Your task to perform on an android device: open a new tab in the chrome app Image 0: 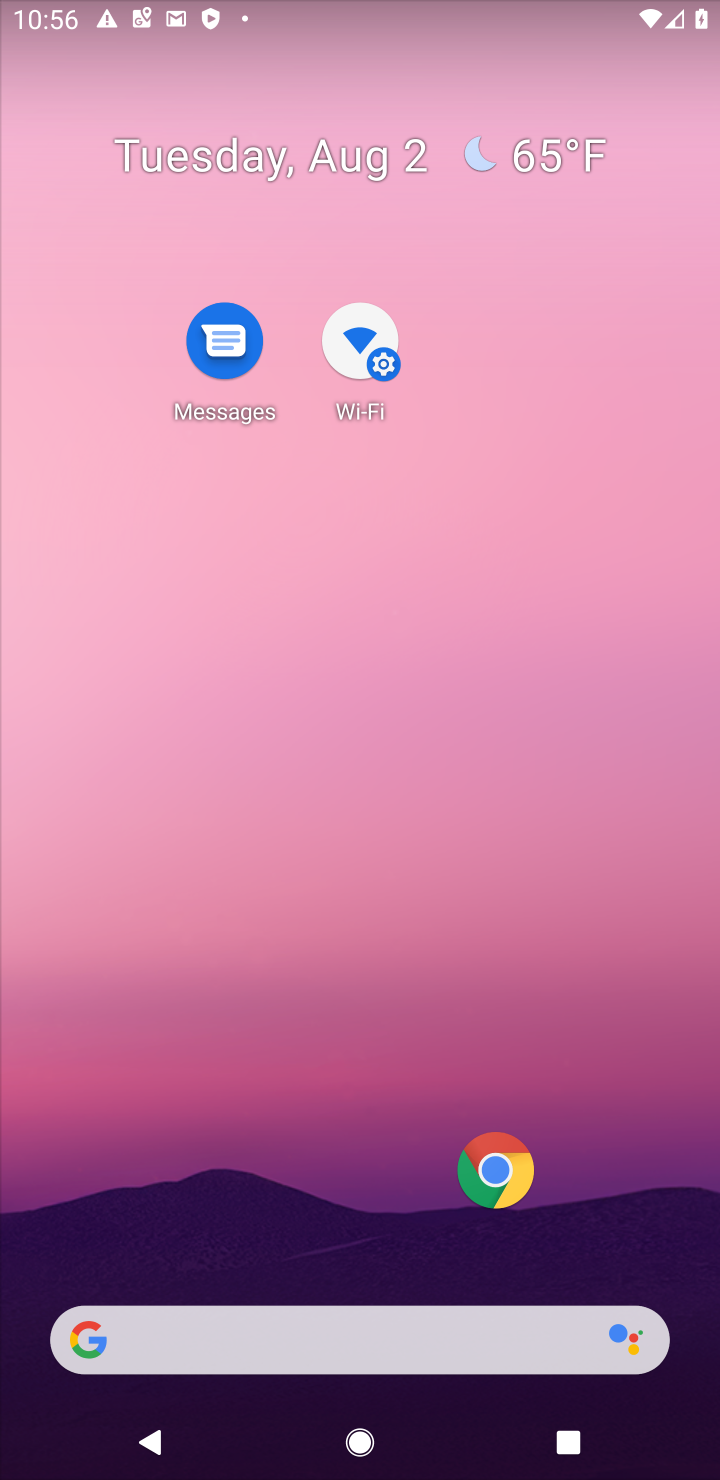
Step 0: drag from (385, 1290) to (498, 505)
Your task to perform on an android device: open a new tab in the chrome app Image 1: 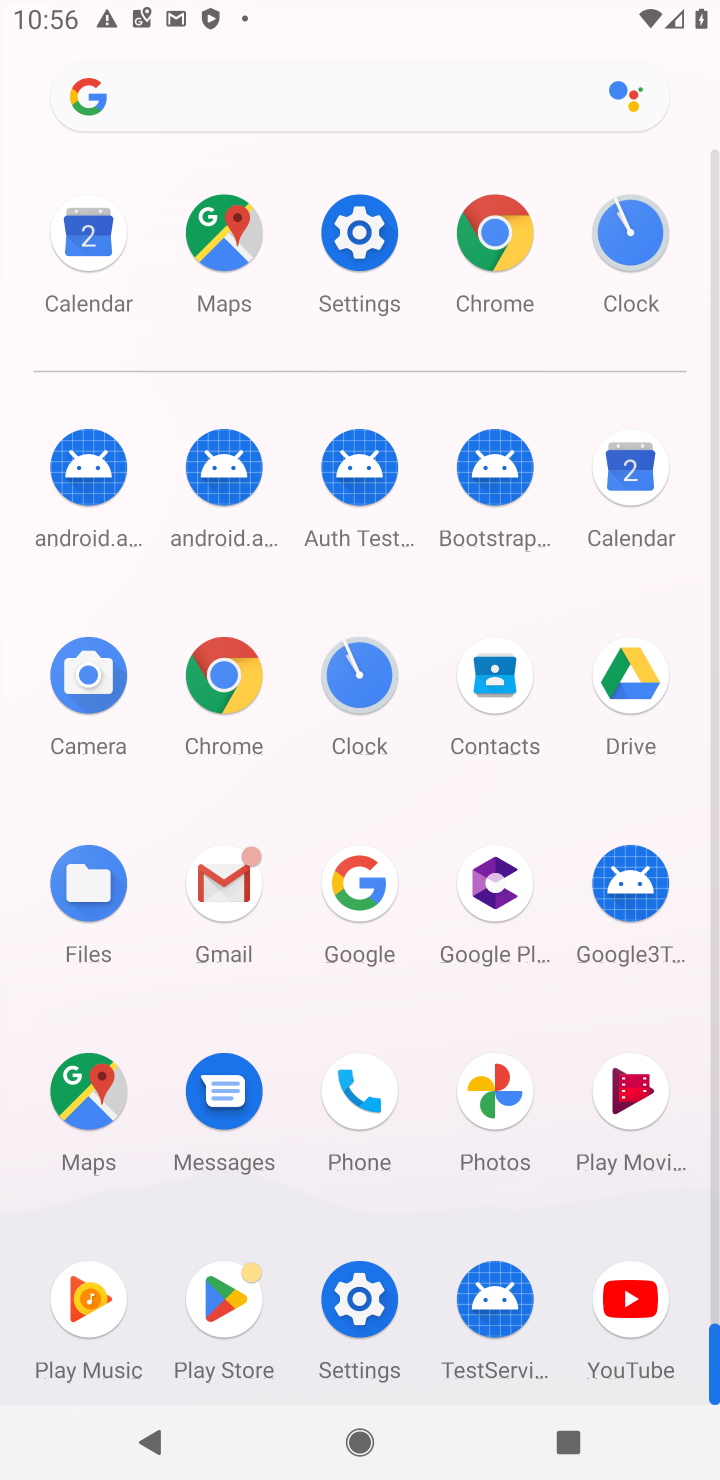
Step 1: click (236, 686)
Your task to perform on an android device: open a new tab in the chrome app Image 2: 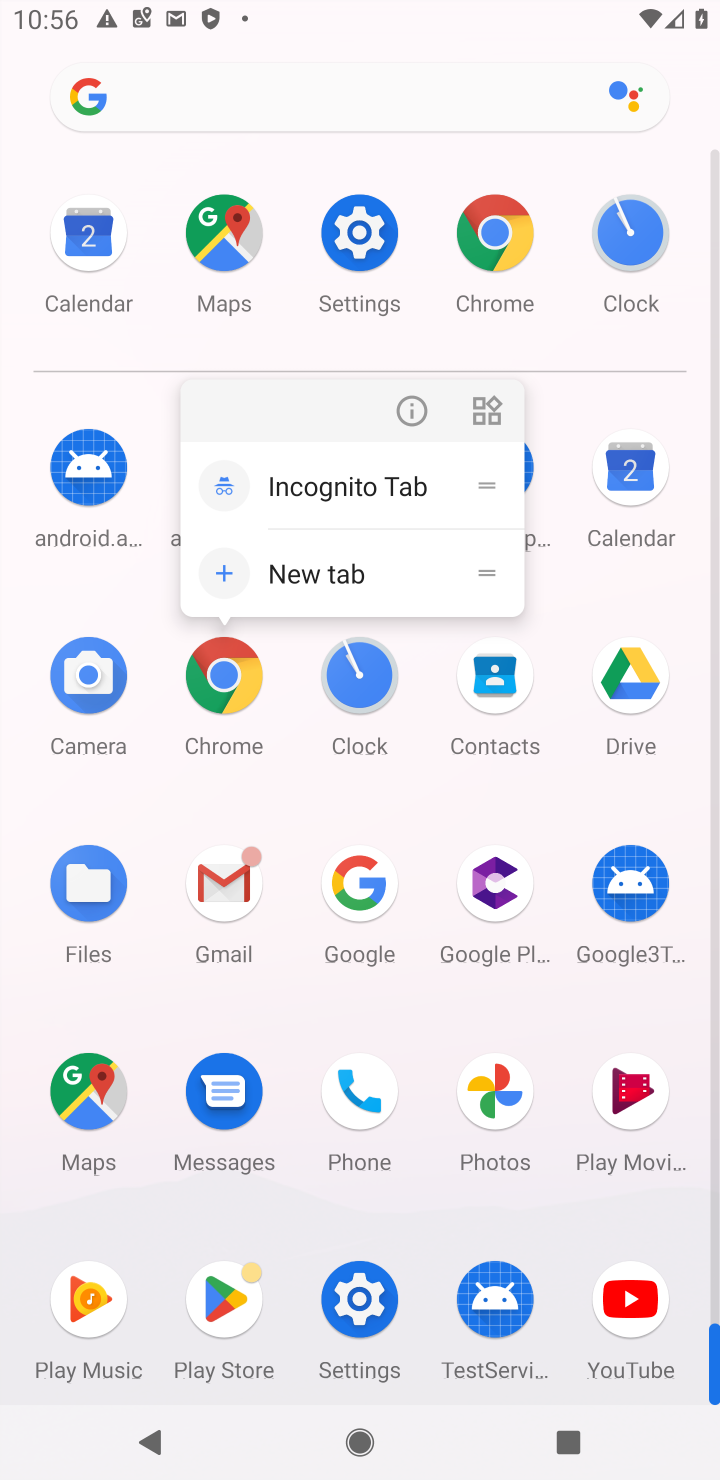
Step 2: click (400, 413)
Your task to perform on an android device: open a new tab in the chrome app Image 3: 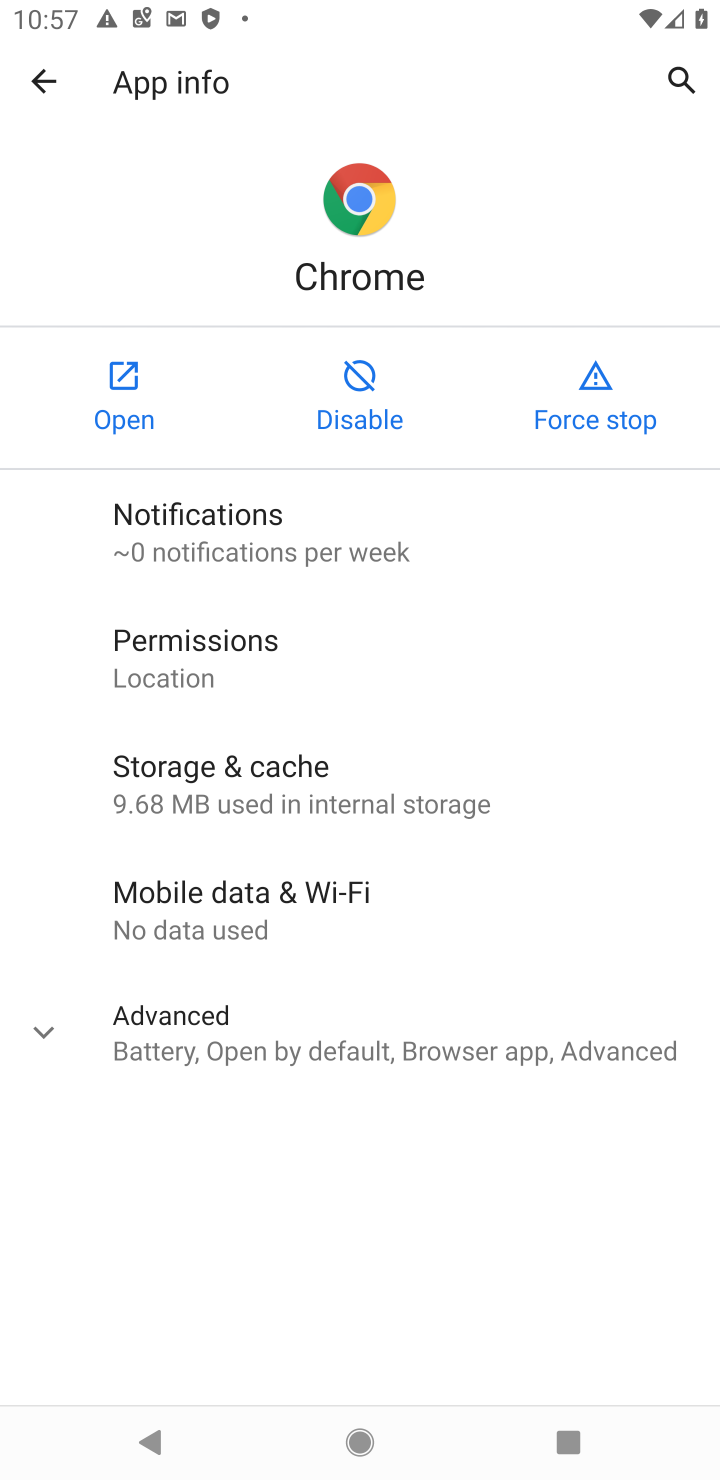
Step 3: click (118, 424)
Your task to perform on an android device: open a new tab in the chrome app Image 4: 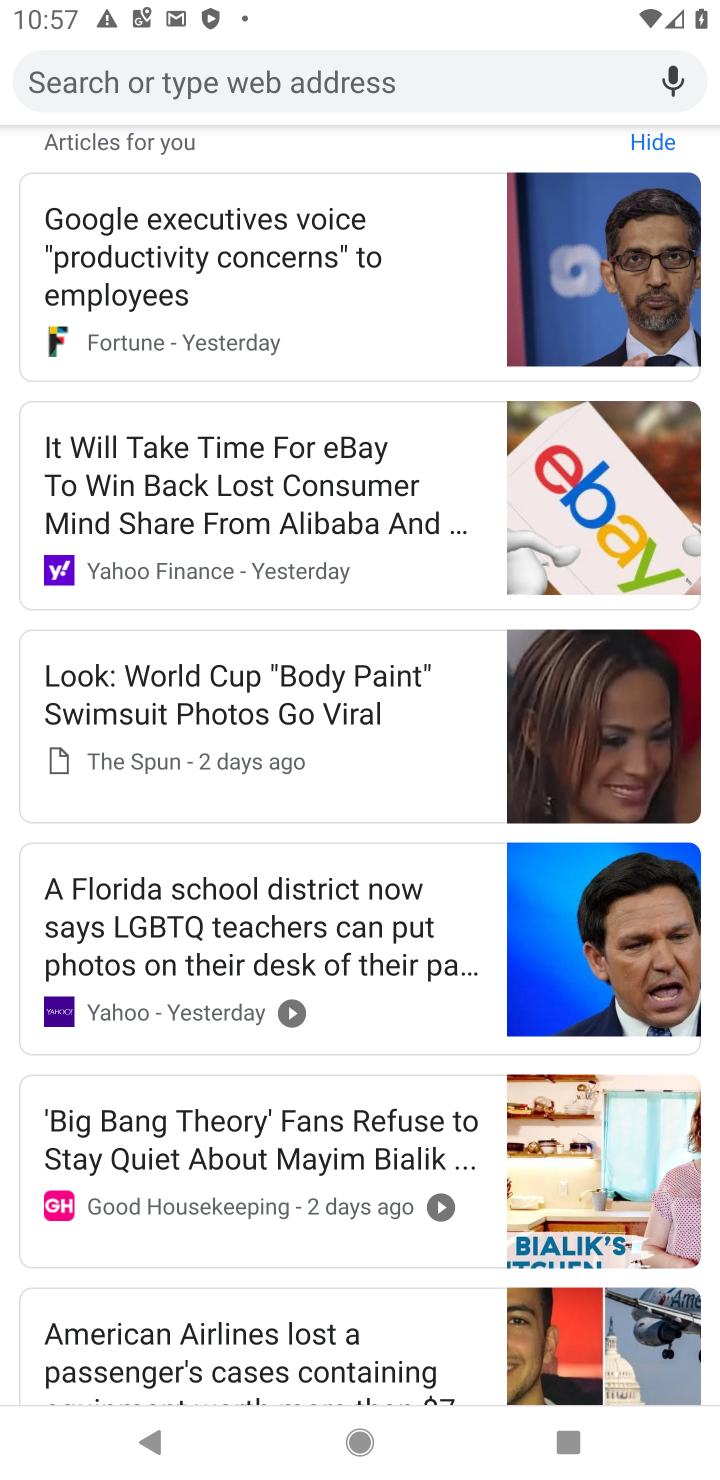
Step 4: drag from (570, 209) to (714, 1171)
Your task to perform on an android device: open a new tab in the chrome app Image 5: 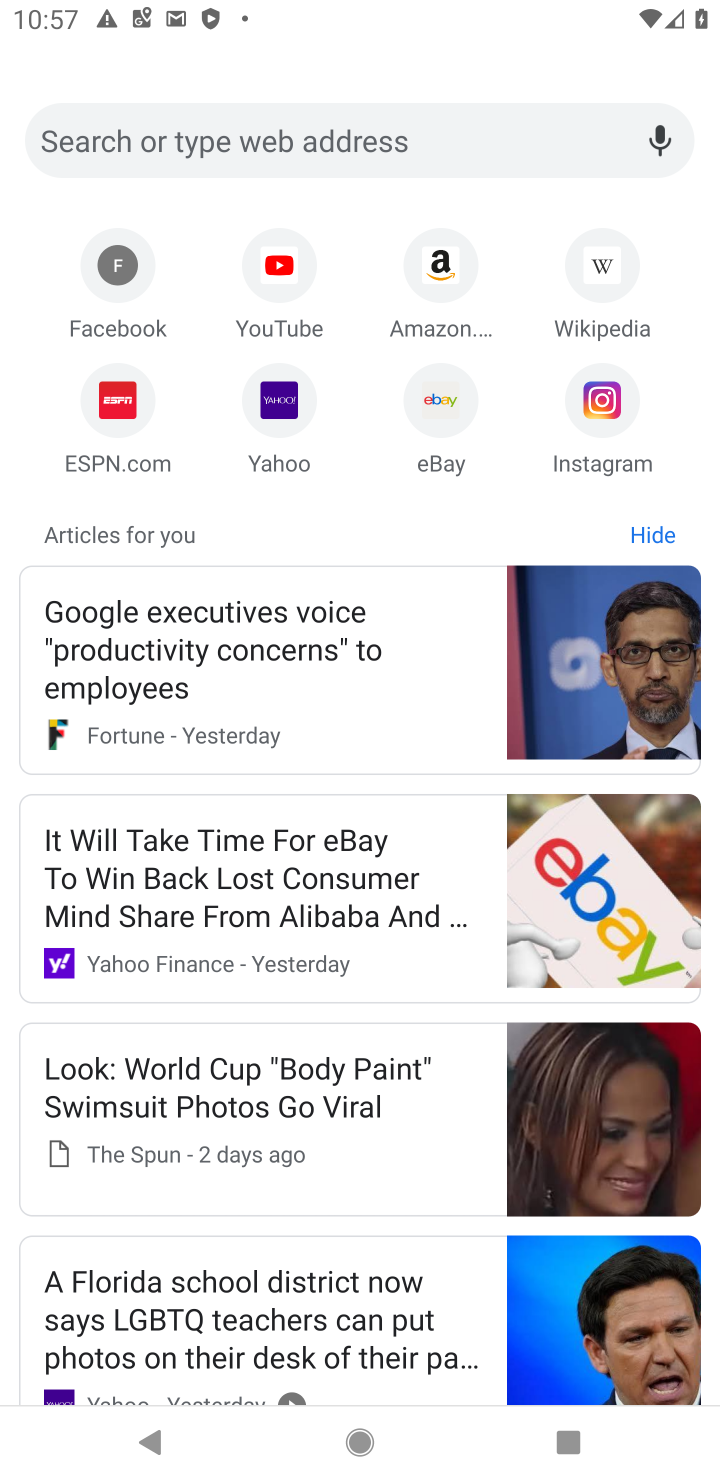
Step 5: drag from (590, 340) to (534, 1442)
Your task to perform on an android device: open a new tab in the chrome app Image 6: 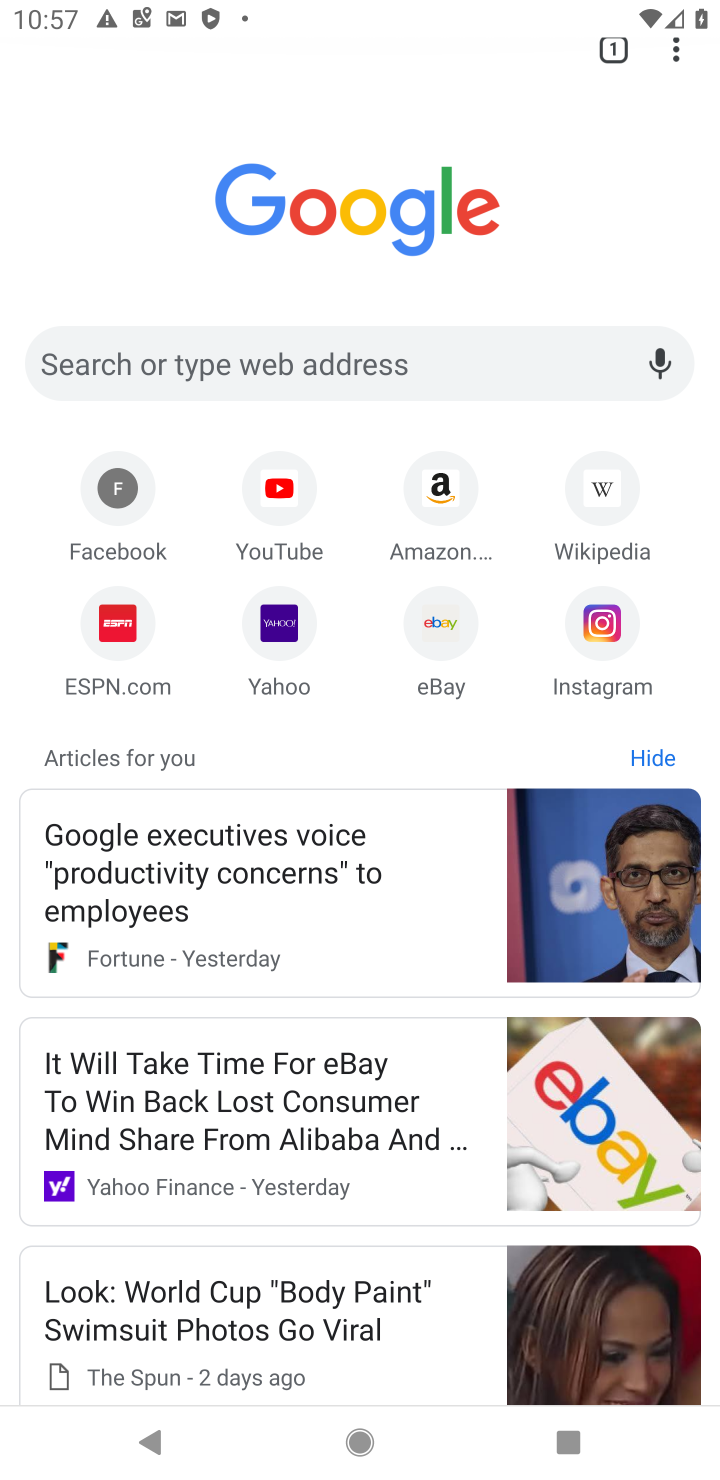
Step 6: drag from (586, 248) to (607, 1163)
Your task to perform on an android device: open a new tab in the chrome app Image 7: 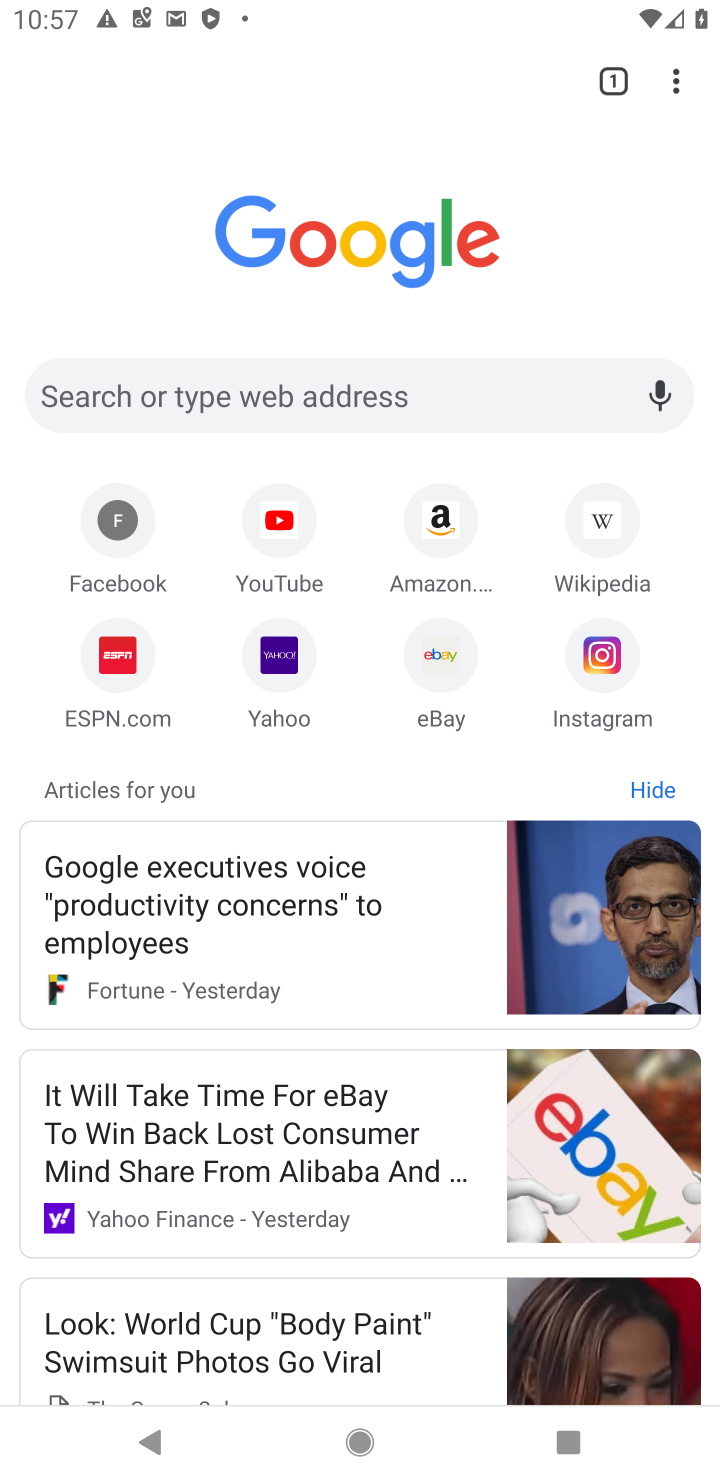
Step 7: drag from (365, 169) to (428, 816)
Your task to perform on an android device: open a new tab in the chrome app Image 8: 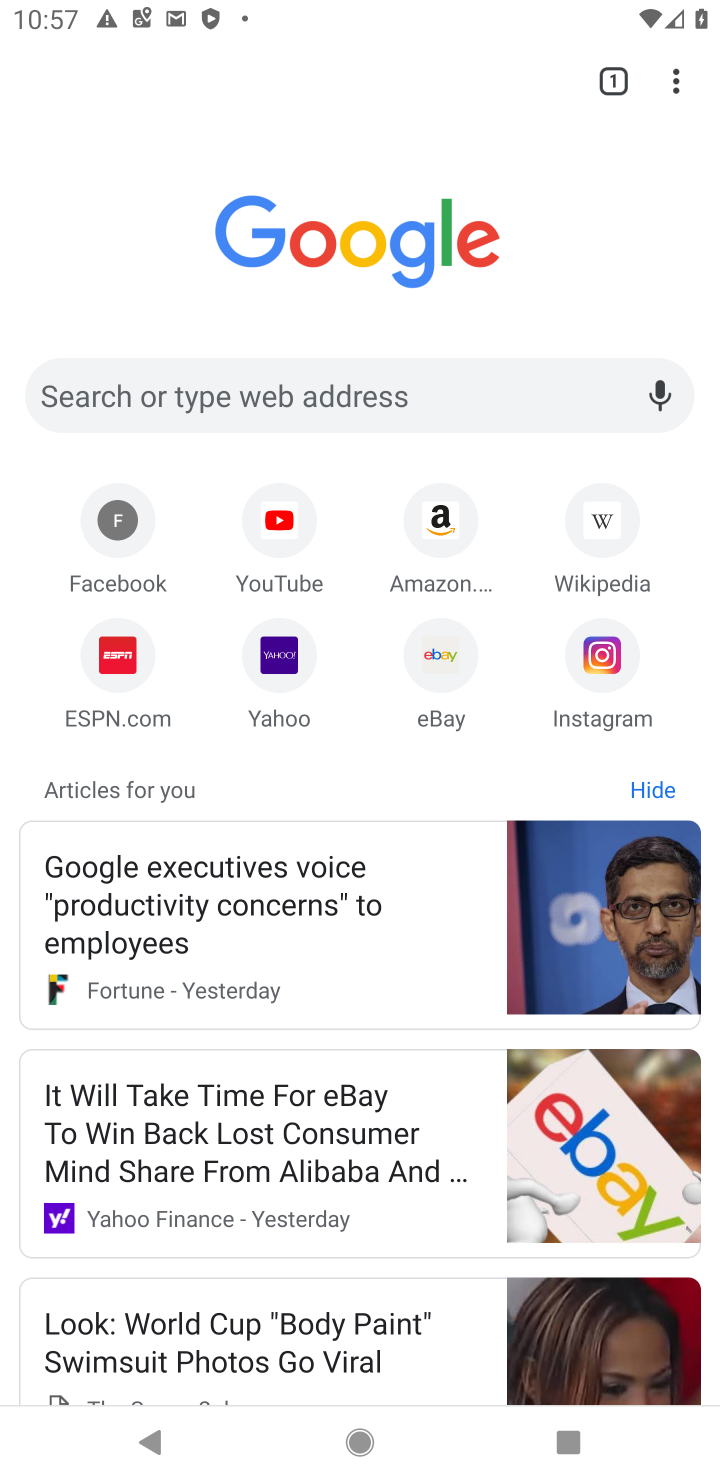
Step 8: click (616, 96)
Your task to perform on an android device: open a new tab in the chrome app Image 9: 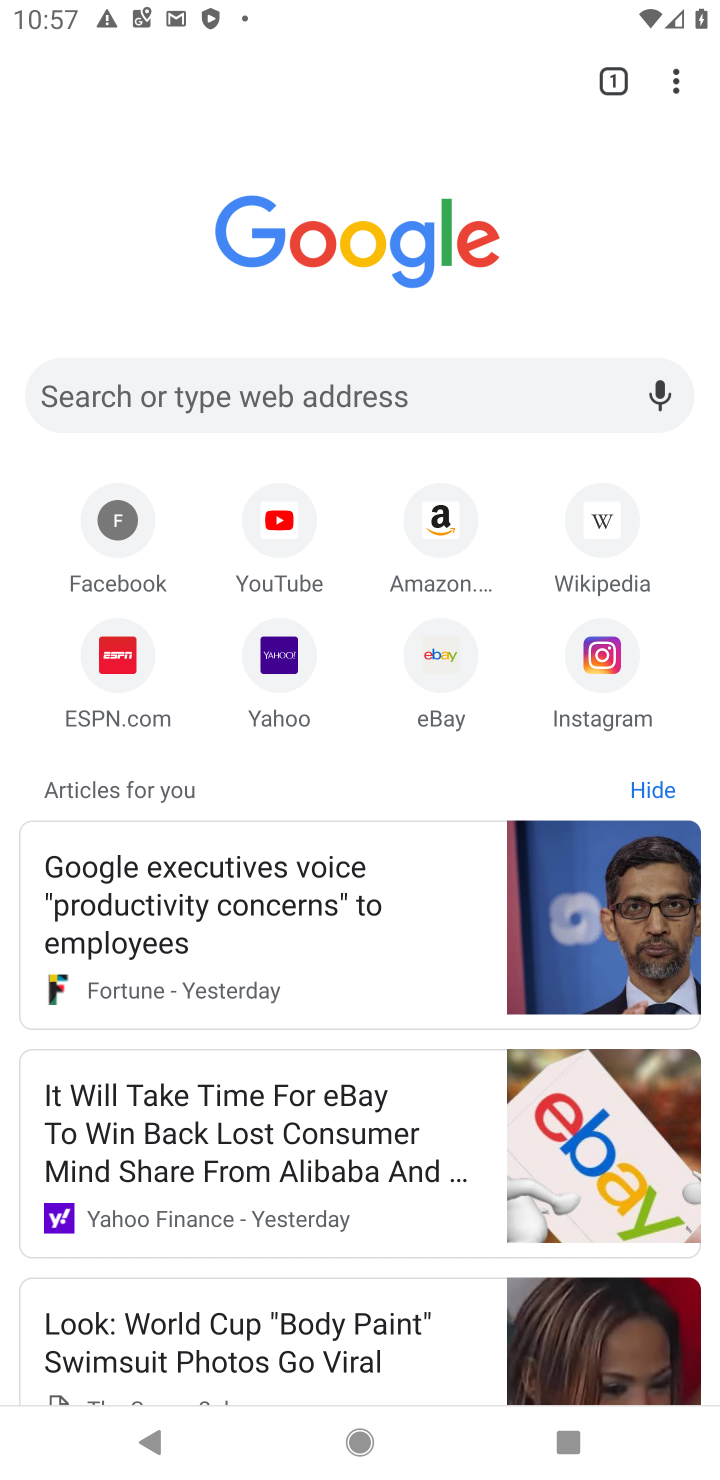
Step 9: task complete